Your task to perform on an android device: turn off sleep mode Image 0: 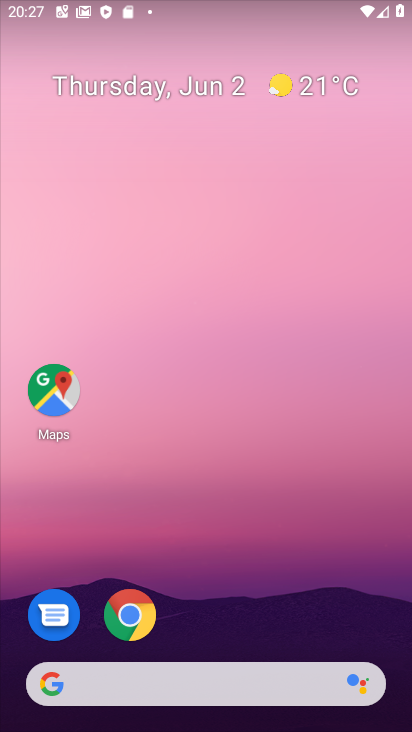
Step 0: task complete